Your task to perform on an android device: Go to Amazon Image 0: 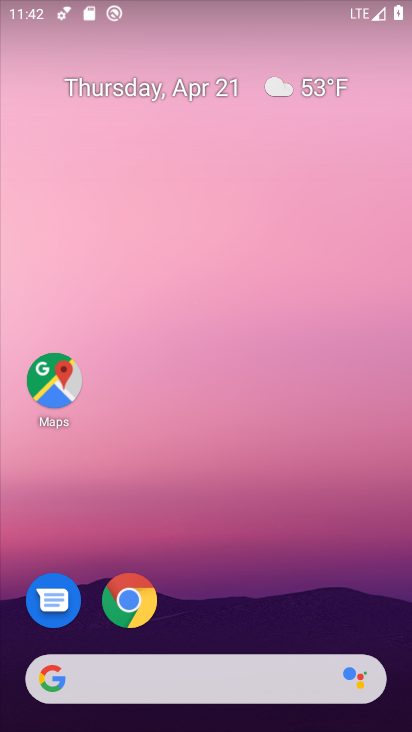
Step 0: click (136, 595)
Your task to perform on an android device: Go to Amazon Image 1: 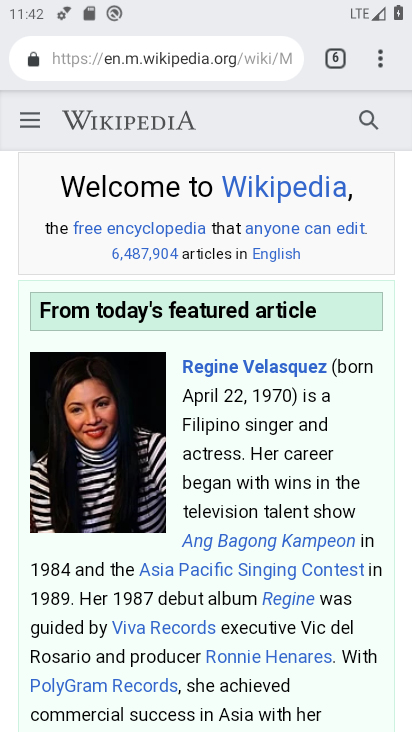
Step 1: click (331, 60)
Your task to perform on an android device: Go to Amazon Image 2: 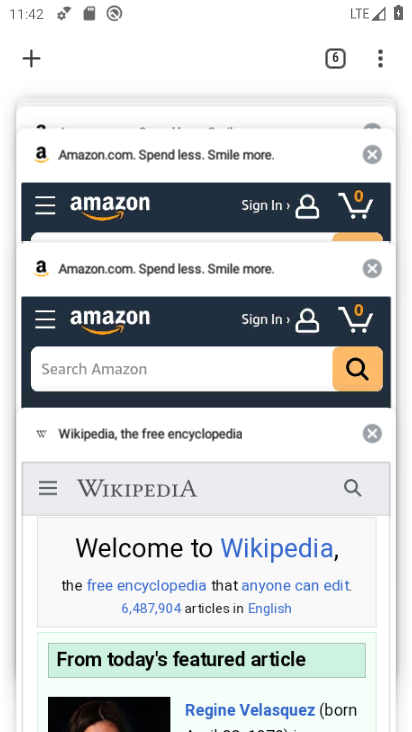
Step 2: click (20, 54)
Your task to perform on an android device: Go to Amazon Image 3: 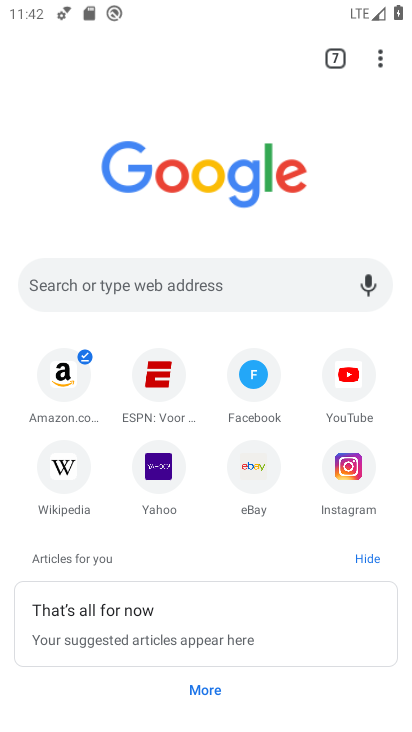
Step 3: click (59, 366)
Your task to perform on an android device: Go to Amazon Image 4: 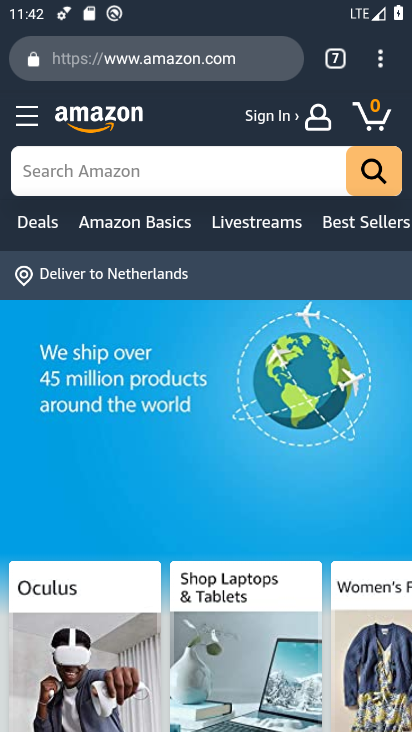
Step 4: task complete